Your task to perform on an android device: find snoozed emails in the gmail app Image 0: 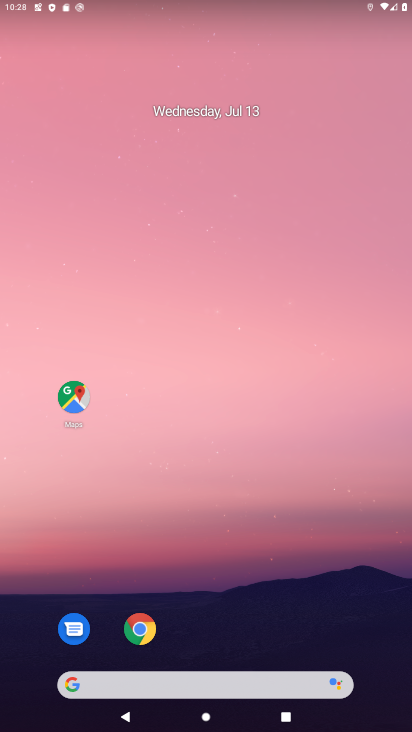
Step 0: press home button
Your task to perform on an android device: find snoozed emails in the gmail app Image 1: 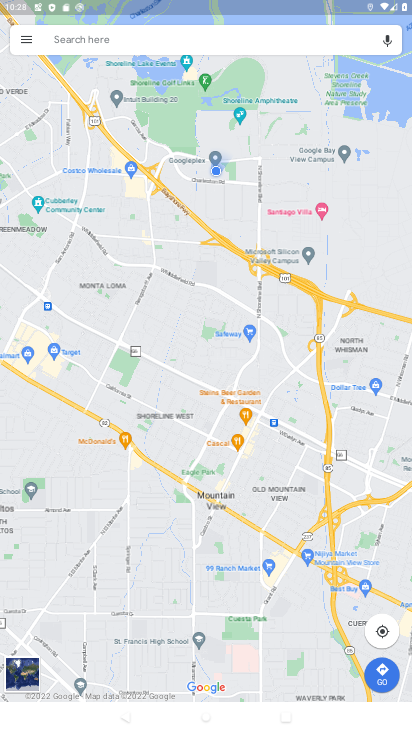
Step 1: click (208, 86)
Your task to perform on an android device: find snoozed emails in the gmail app Image 2: 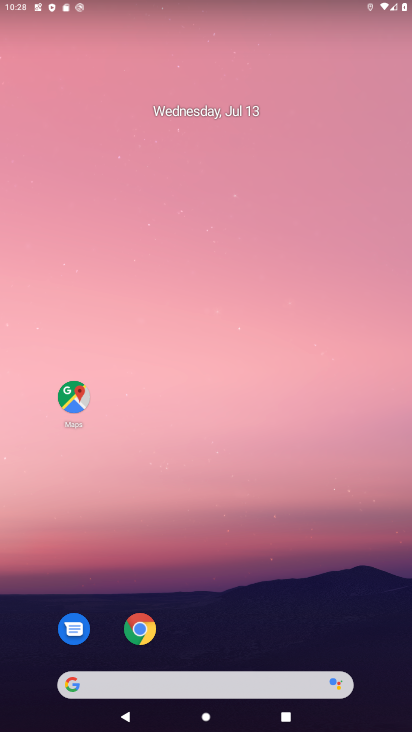
Step 2: drag from (208, 639) to (208, 82)
Your task to perform on an android device: find snoozed emails in the gmail app Image 3: 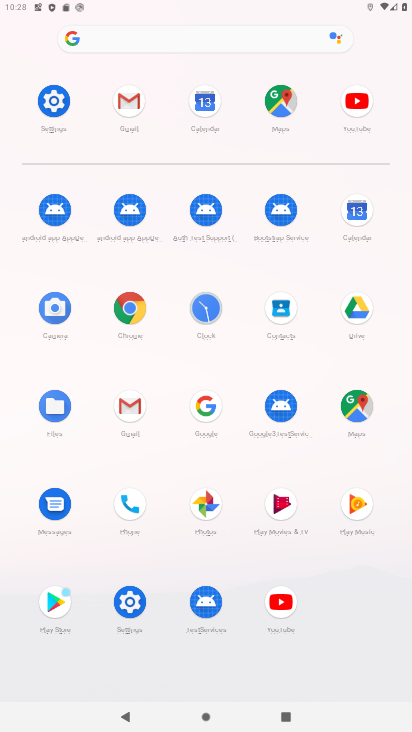
Step 3: click (124, 410)
Your task to perform on an android device: find snoozed emails in the gmail app Image 4: 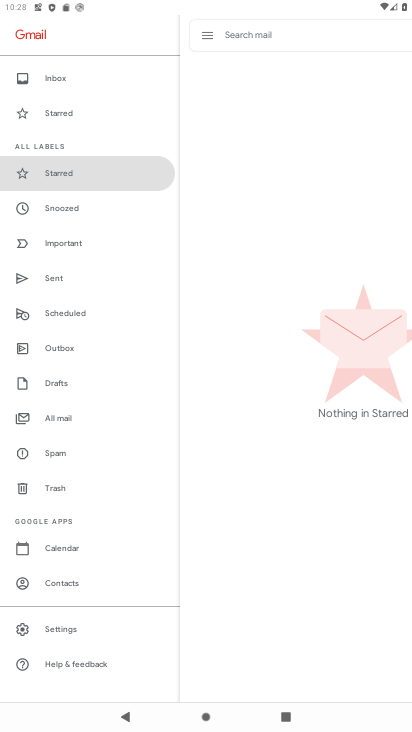
Step 4: click (86, 205)
Your task to perform on an android device: find snoozed emails in the gmail app Image 5: 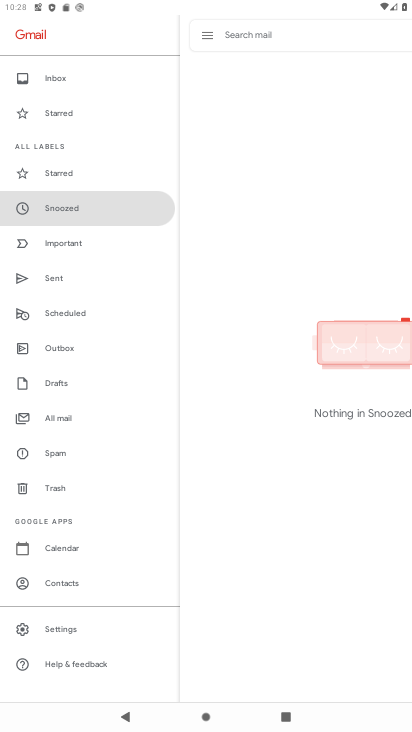
Step 5: task complete